Your task to perform on an android device: delete browsing data in the chrome app Image 0: 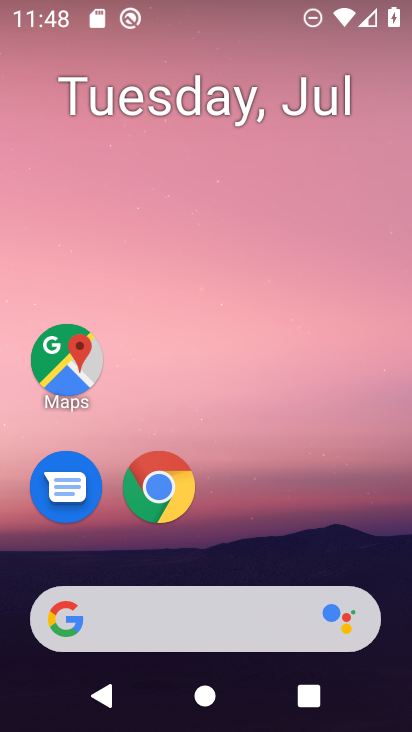
Step 0: drag from (365, 512) to (273, 125)
Your task to perform on an android device: delete browsing data in the chrome app Image 1: 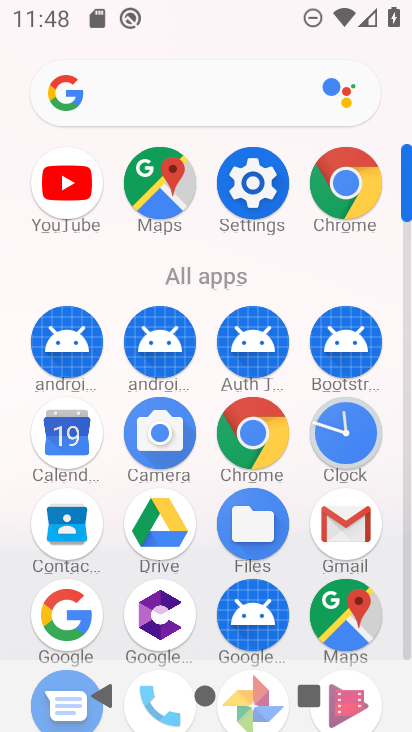
Step 1: click (355, 192)
Your task to perform on an android device: delete browsing data in the chrome app Image 2: 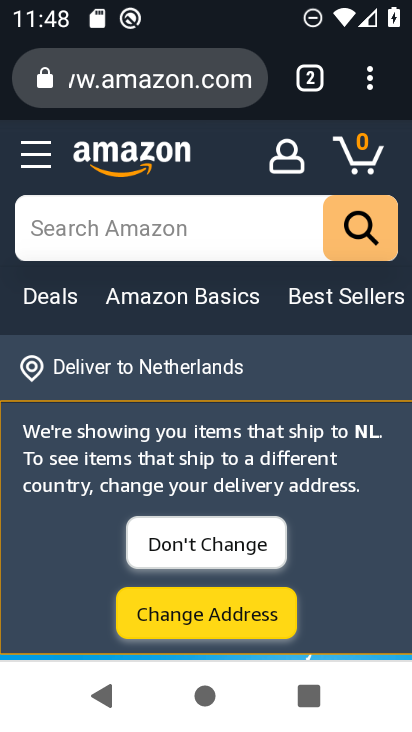
Step 2: click (368, 84)
Your task to perform on an android device: delete browsing data in the chrome app Image 3: 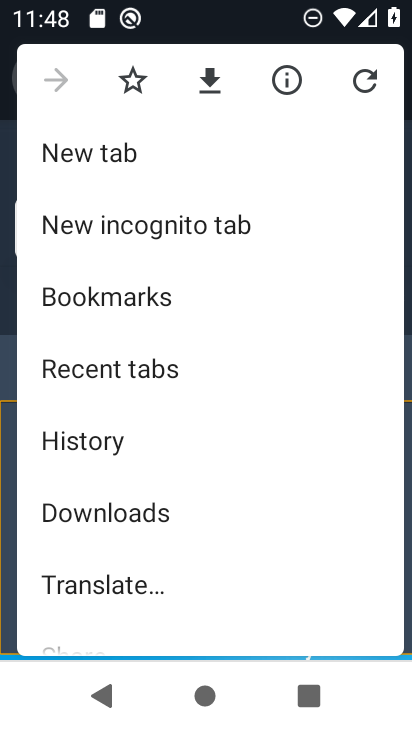
Step 3: click (133, 437)
Your task to perform on an android device: delete browsing data in the chrome app Image 4: 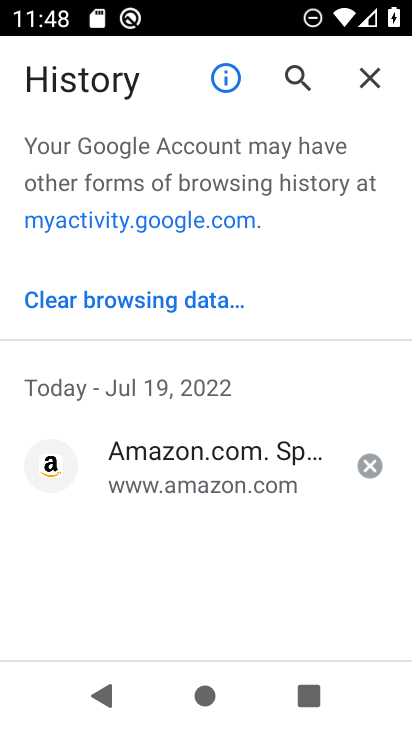
Step 4: click (173, 303)
Your task to perform on an android device: delete browsing data in the chrome app Image 5: 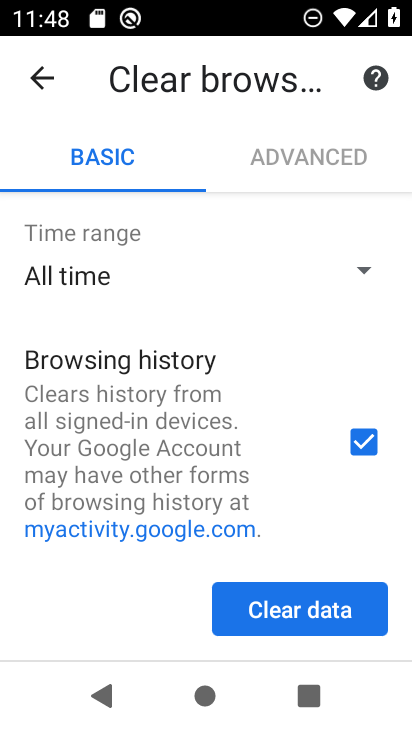
Step 5: click (337, 609)
Your task to perform on an android device: delete browsing data in the chrome app Image 6: 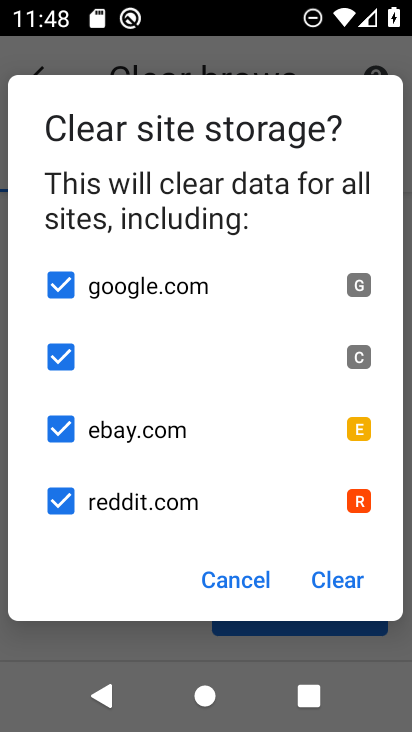
Step 6: click (346, 581)
Your task to perform on an android device: delete browsing data in the chrome app Image 7: 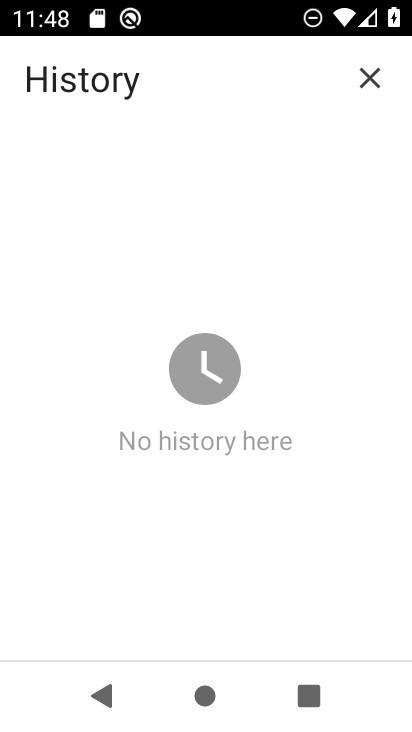
Step 7: task complete